Your task to perform on an android device: check battery use Image 0: 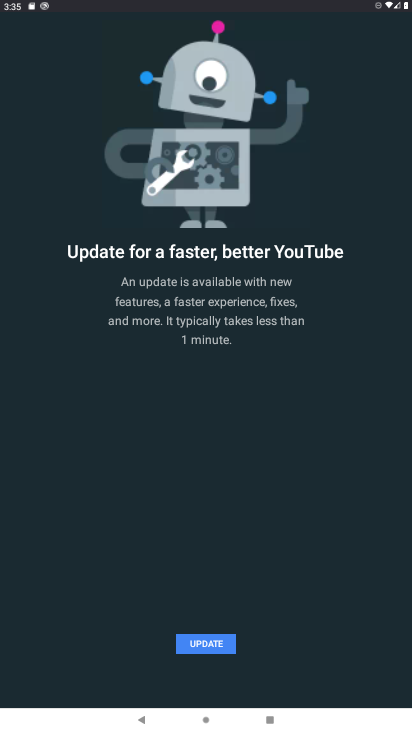
Step 0: press home button
Your task to perform on an android device: check battery use Image 1: 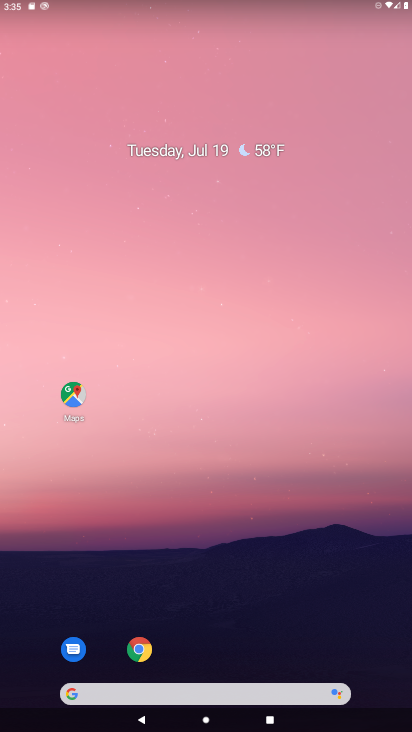
Step 1: drag from (247, 707) to (226, 520)
Your task to perform on an android device: check battery use Image 2: 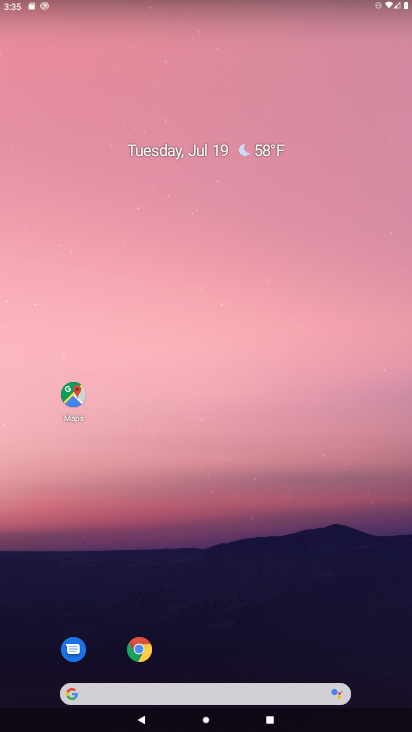
Step 2: drag from (245, 629) to (241, 268)
Your task to perform on an android device: check battery use Image 3: 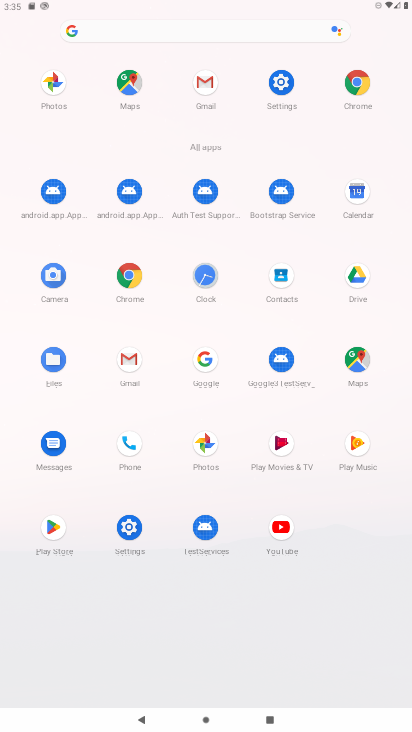
Step 3: click (279, 86)
Your task to perform on an android device: check battery use Image 4: 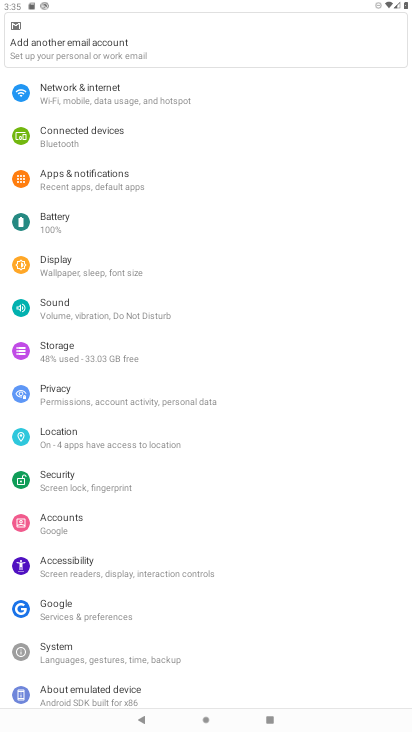
Step 4: click (51, 217)
Your task to perform on an android device: check battery use Image 5: 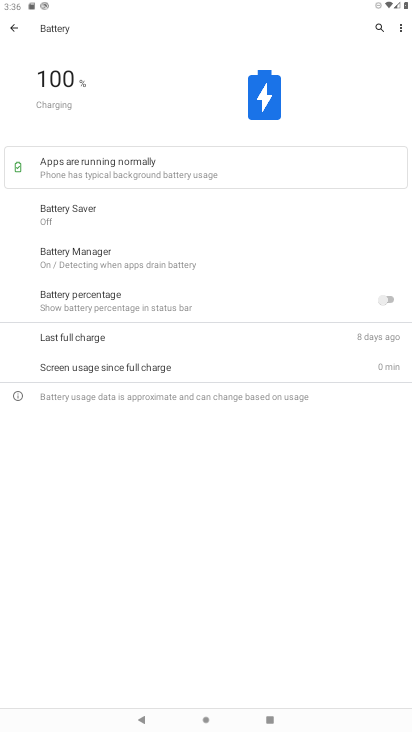
Step 5: click (402, 24)
Your task to perform on an android device: check battery use Image 6: 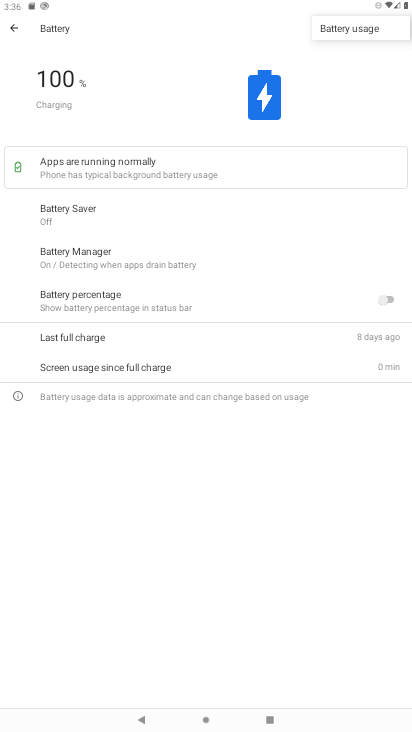
Step 6: click (369, 24)
Your task to perform on an android device: check battery use Image 7: 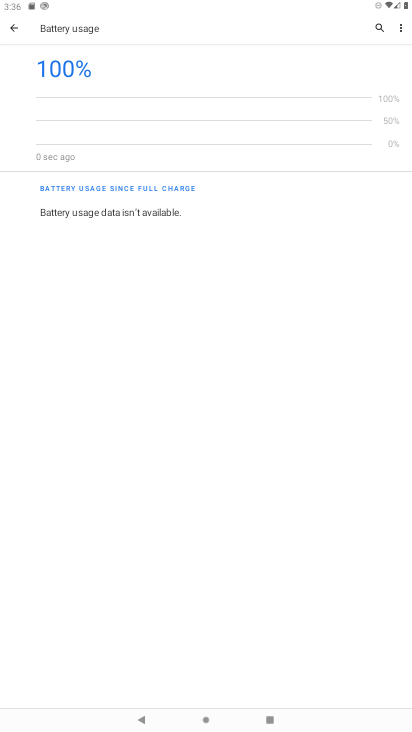
Step 7: task complete